Your task to perform on an android device: When is my next appointment? Image 0: 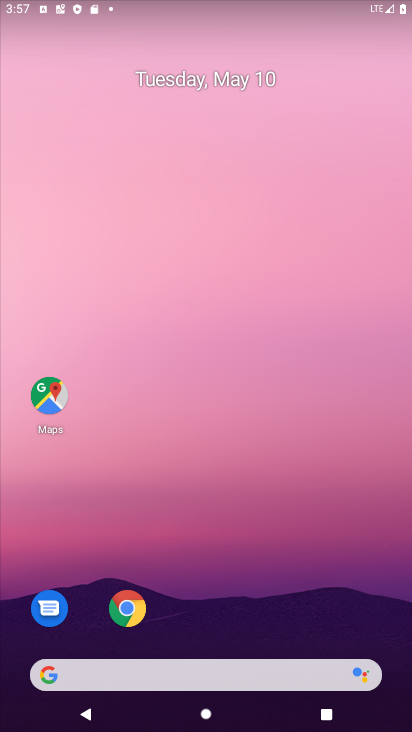
Step 0: drag from (392, 651) to (313, 70)
Your task to perform on an android device: When is my next appointment? Image 1: 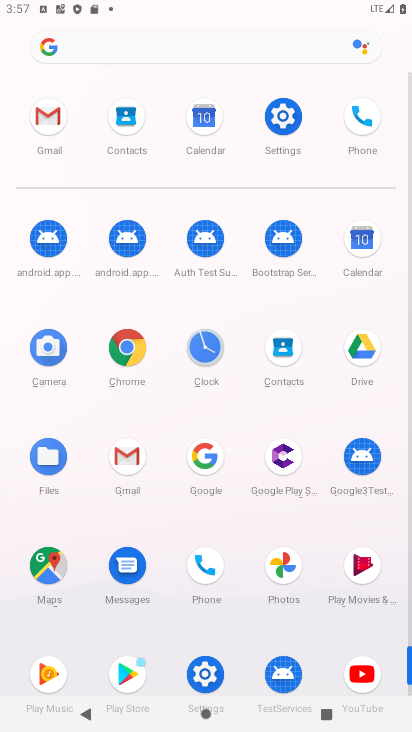
Step 1: click (360, 237)
Your task to perform on an android device: When is my next appointment? Image 2: 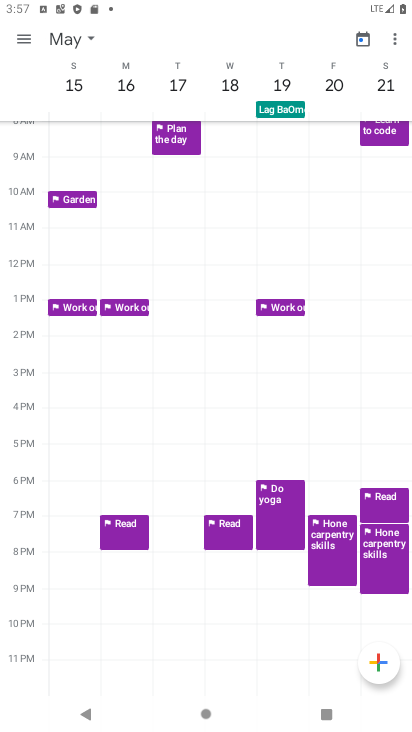
Step 2: click (21, 40)
Your task to perform on an android device: When is my next appointment? Image 3: 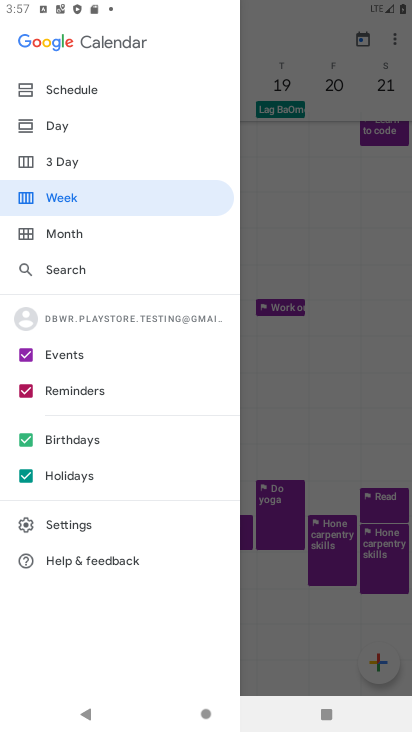
Step 3: click (61, 88)
Your task to perform on an android device: When is my next appointment? Image 4: 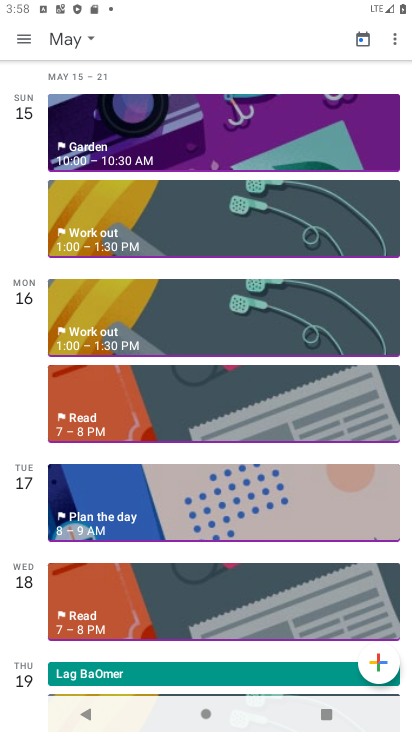
Step 4: task complete